Your task to perform on an android device: turn pop-ups off in chrome Image 0: 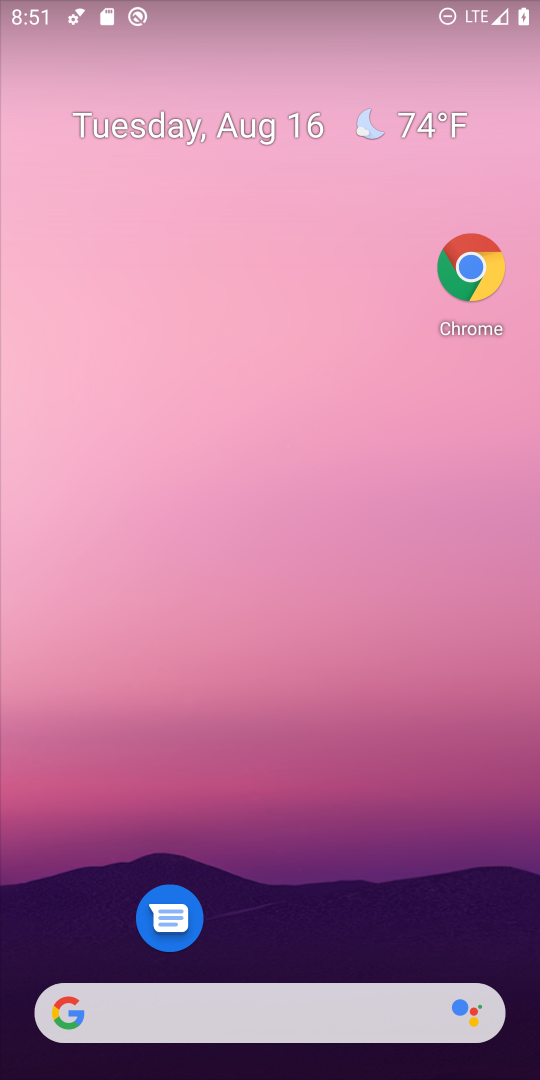
Step 0: drag from (353, 626) to (528, 376)
Your task to perform on an android device: turn pop-ups off in chrome Image 1: 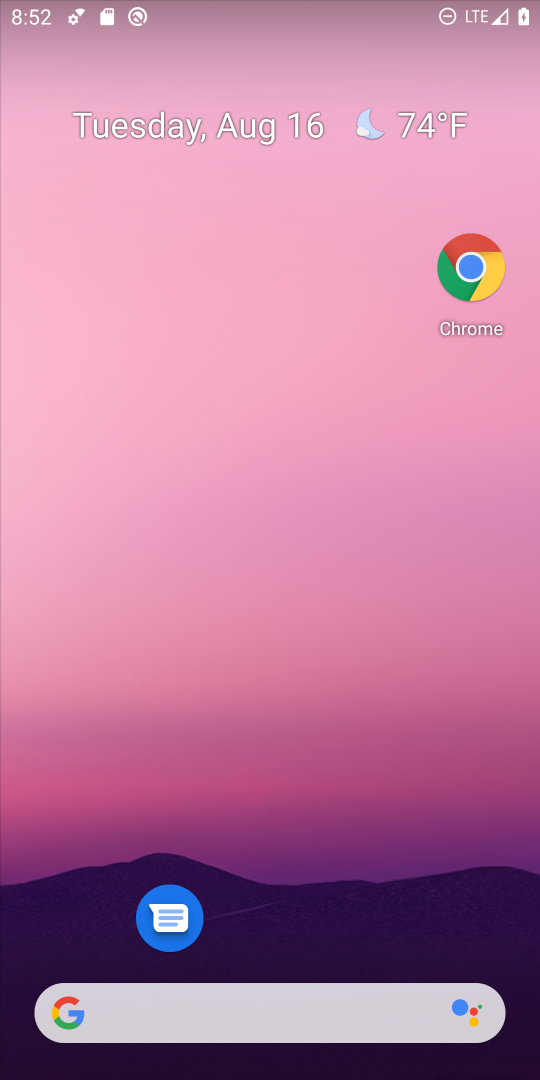
Step 1: drag from (331, 935) to (429, 12)
Your task to perform on an android device: turn pop-ups off in chrome Image 2: 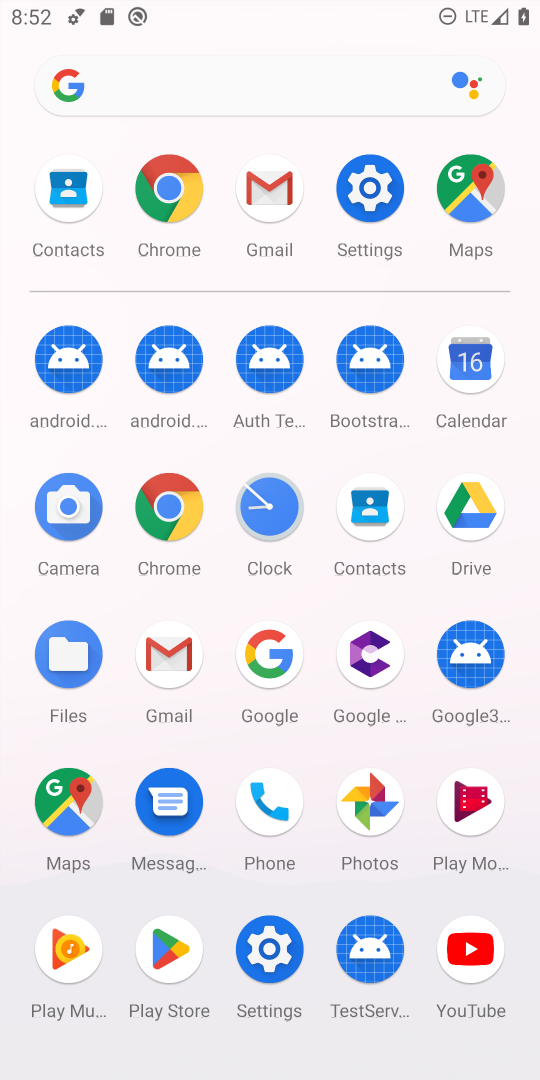
Step 2: click (167, 221)
Your task to perform on an android device: turn pop-ups off in chrome Image 3: 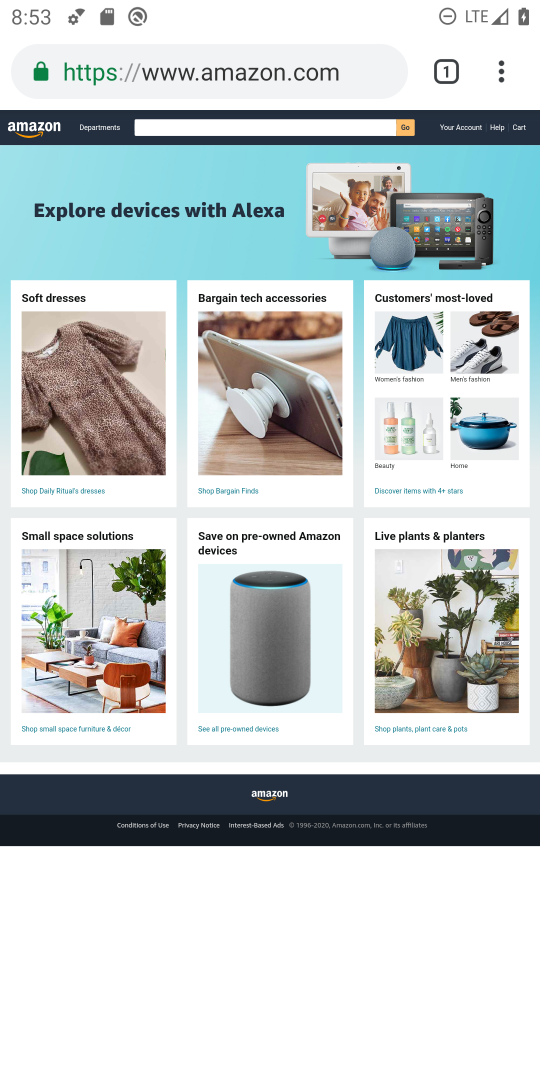
Step 3: click (499, 67)
Your task to perform on an android device: turn pop-ups off in chrome Image 4: 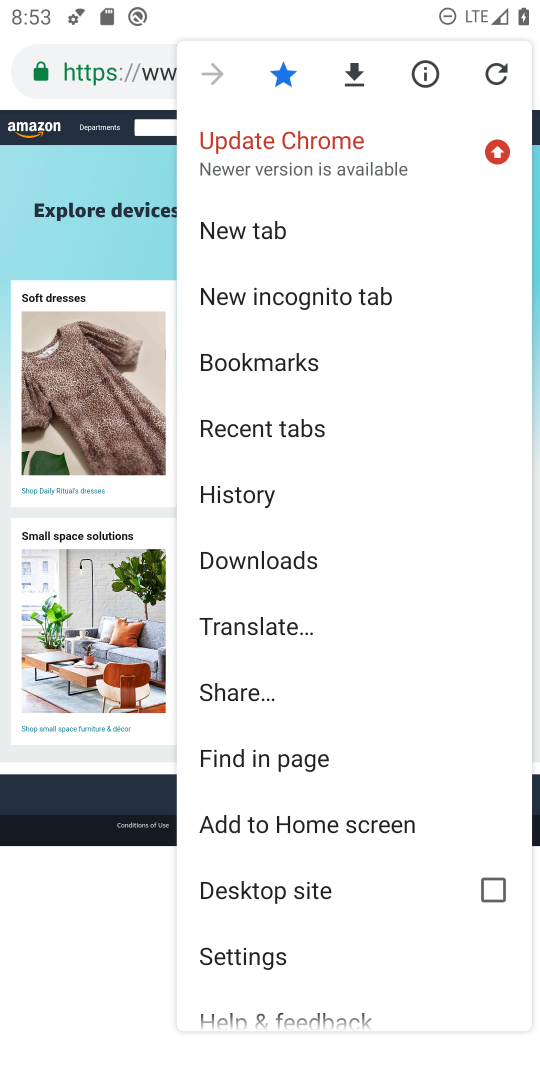
Step 4: click (286, 954)
Your task to perform on an android device: turn pop-ups off in chrome Image 5: 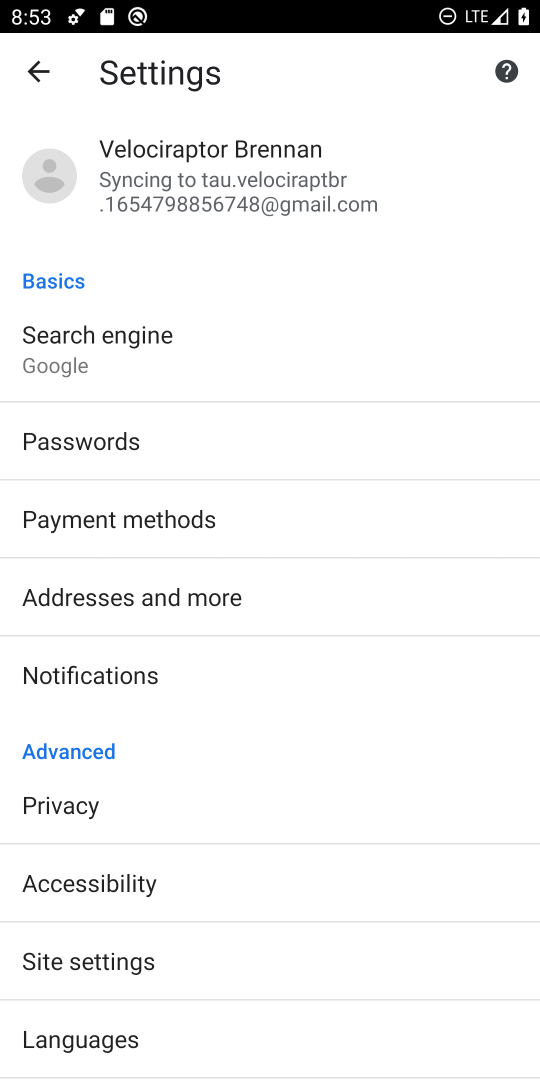
Step 5: drag from (269, 979) to (327, 226)
Your task to perform on an android device: turn pop-ups off in chrome Image 6: 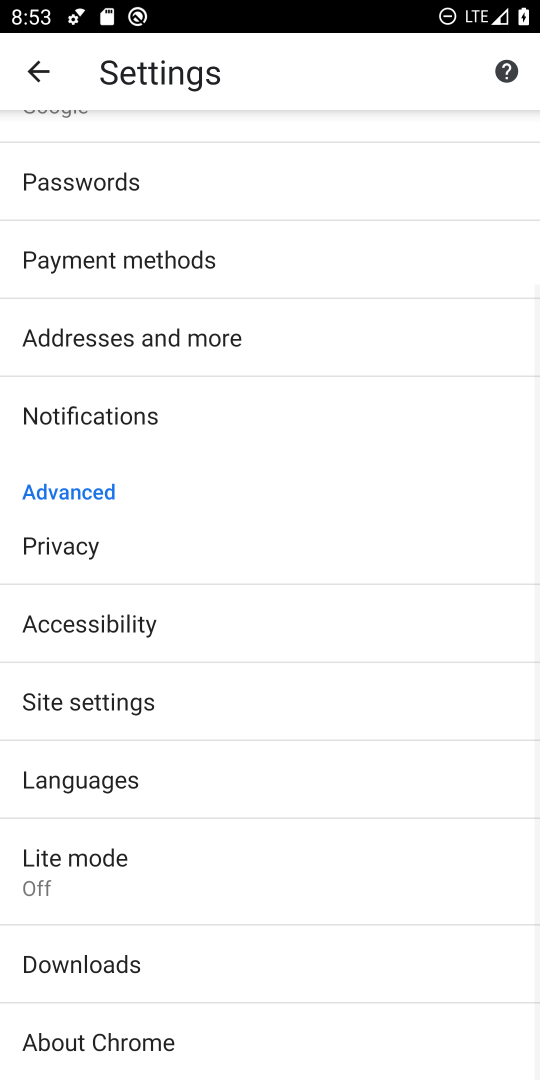
Step 6: click (125, 706)
Your task to perform on an android device: turn pop-ups off in chrome Image 7: 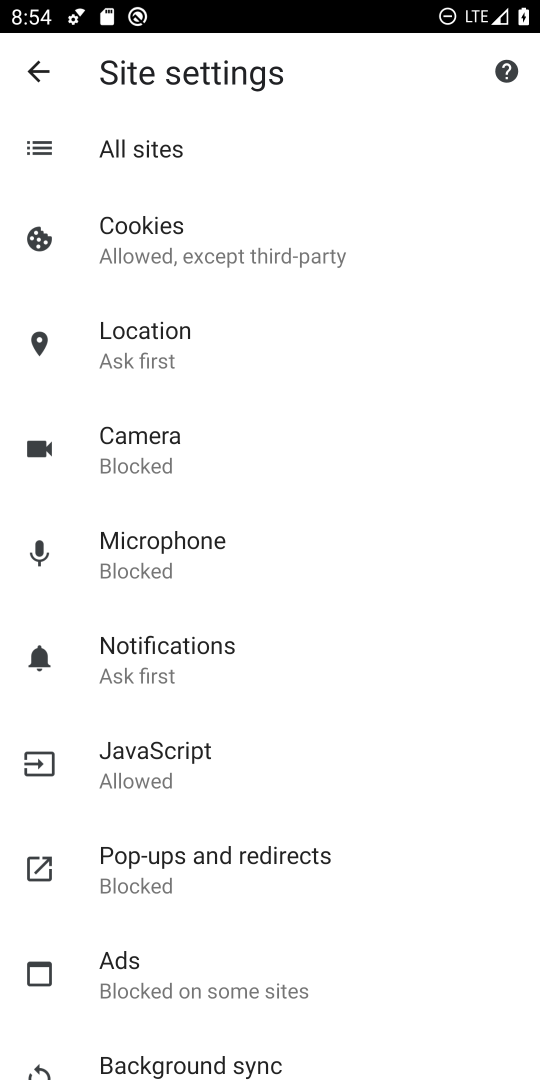
Step 7: click (205, 866)
Your task to perform on an android device: turn pop-ups off in chrome Image 8: 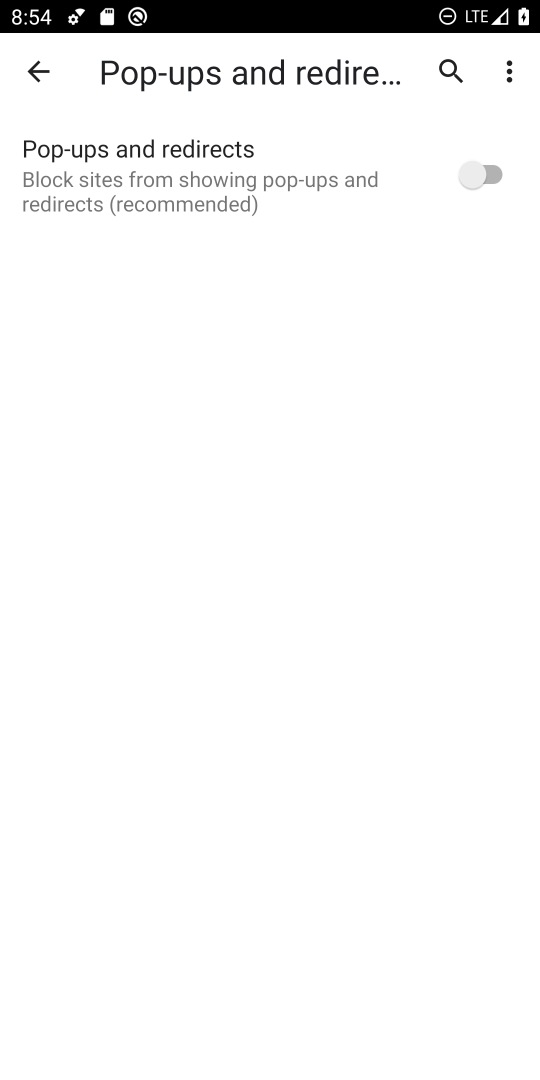
Step 8: task complete